Your task to perform on an android device: turn on sleep mode Image 0: 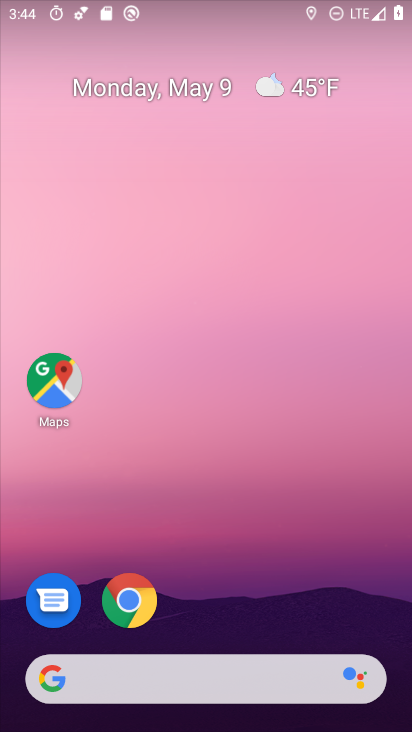
Step 0: drag from (211, 623) to (272, 84)
Your task to perform on an android device: turn on sleep mode Image 1: 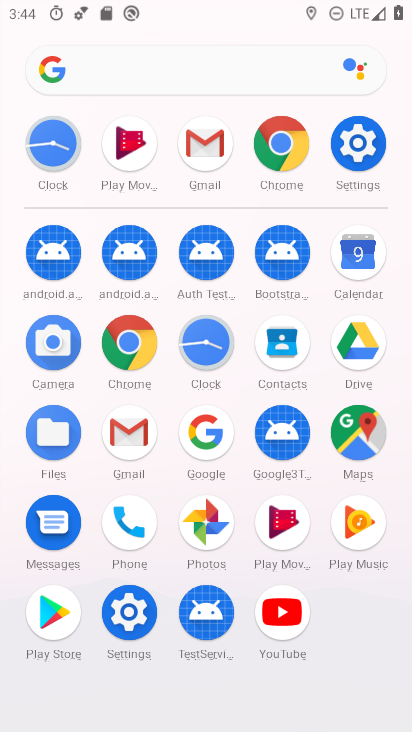
Step 1: click (371, 158)
Your task to perform on an android device: turn on sleep mode Image 2: 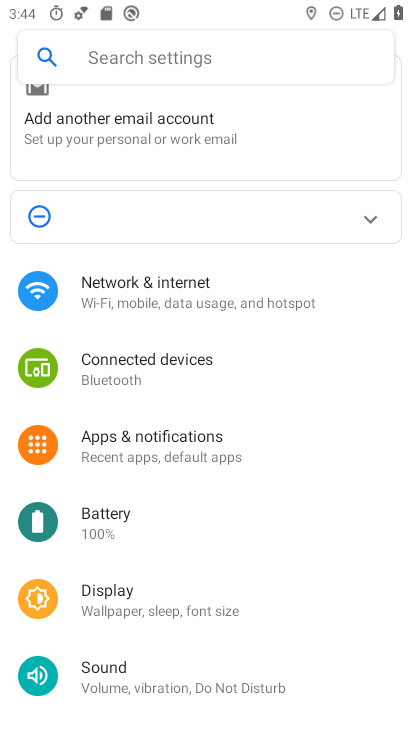
Step 2: click (235, 67)
Your task to perform on an android device: turn on sleep mode Image 3: 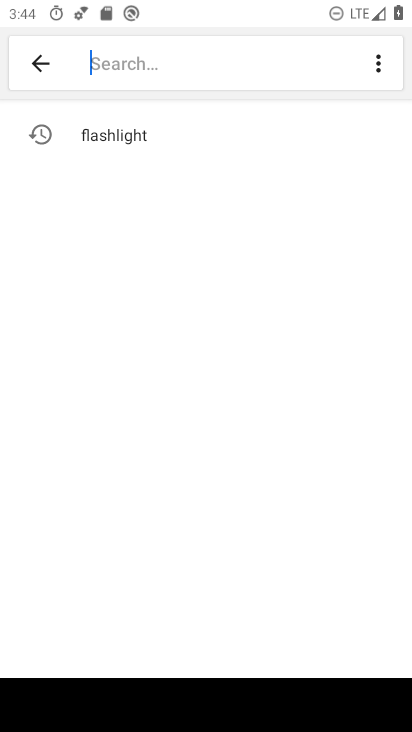
Step 3: type "sleep mode"
Your task to perform on an android device: turn on sleep mode Image 4: 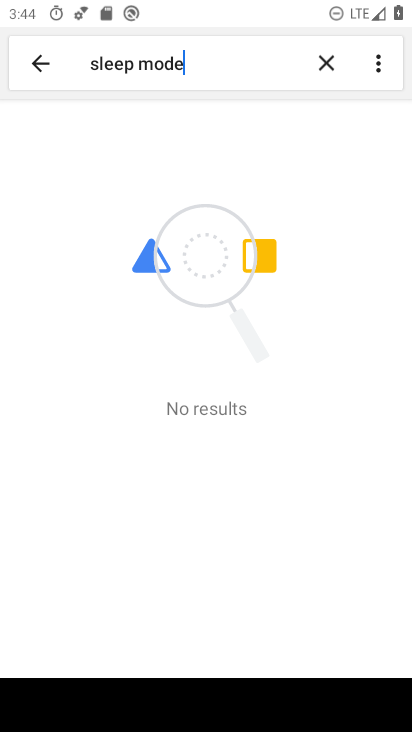
Step 4: task complete